Your task to perform on an android device: turn pop-ups off in chrome Image 0: 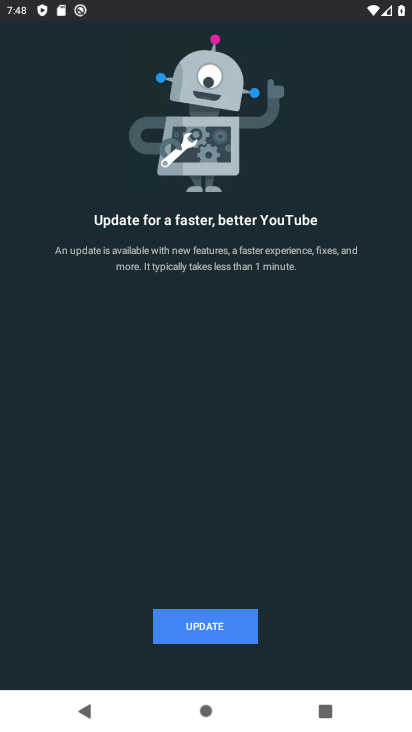
Step 0: press home button
Your task to perform on an android device: turn pop-ups off in chrome Image 1: 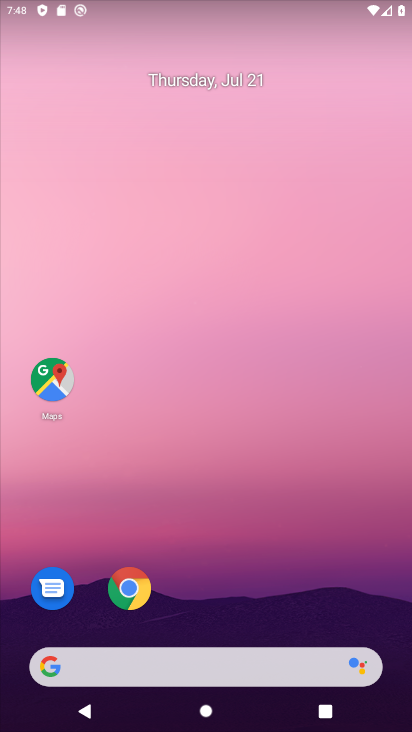
Step 1: click (127, 591)
Your task to perform on an android device: turn pop-ups off in chrome Image 2: 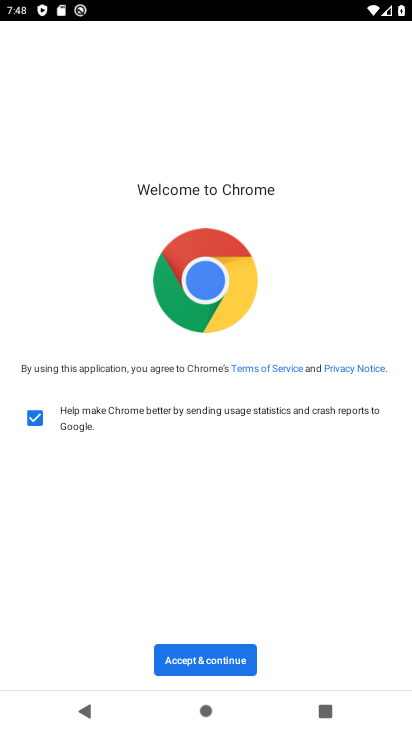
Step 2: click (212, 652)
Your task to perform on an android device: turn pop-ups off in chrome Image 3: 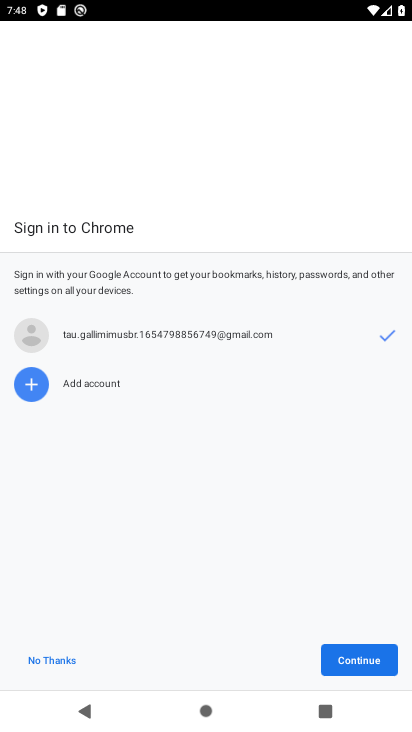
Step 3: click (366, 657)
Your task to perform on an android device: turn pop-ups off in chrome Image 4: 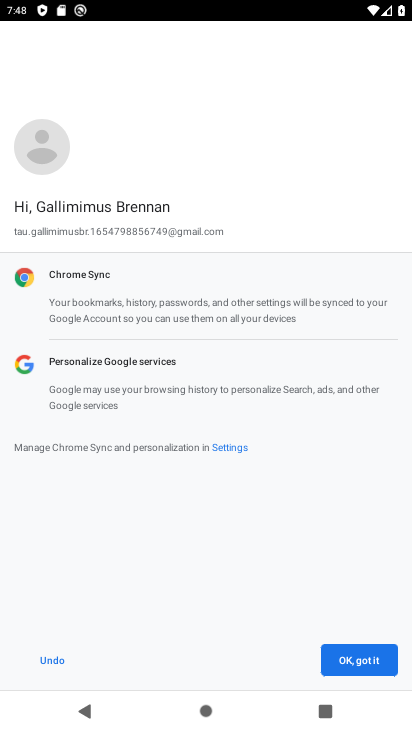
Step 4: click (356, 660)
Your task to perform on an android device: turn pop-ups off in chrome Image 5: 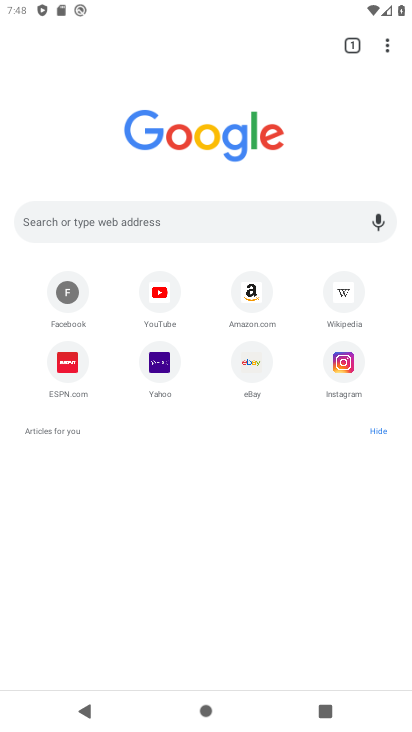
Step 5: click (388, 47)
Your task to perform on an android device: turn pop-ups off in chrome Image 6: 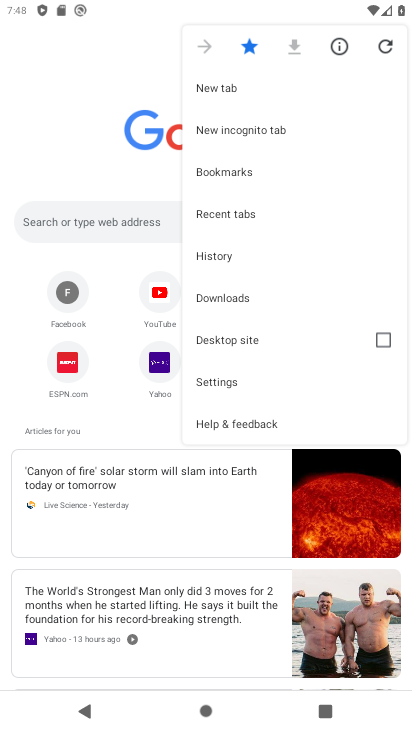
Step 6: click (220, 382)
Your task to perform on an android device: turn pop-ups off in chrome Image 7: 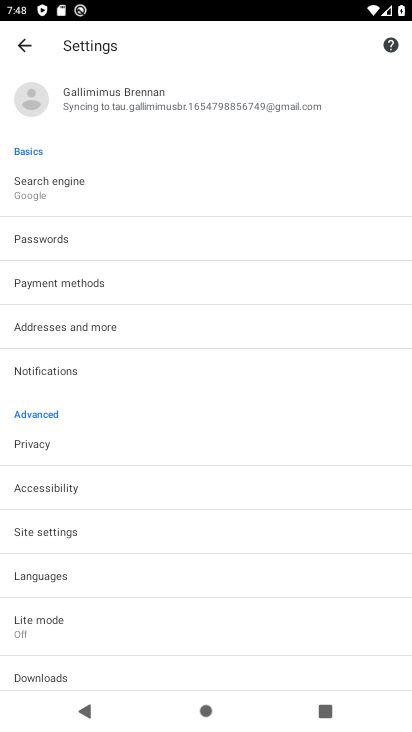
Step 7: click (51, 531)
Your task to perform on an android device: turn pop-ups off in chrome Image 8: 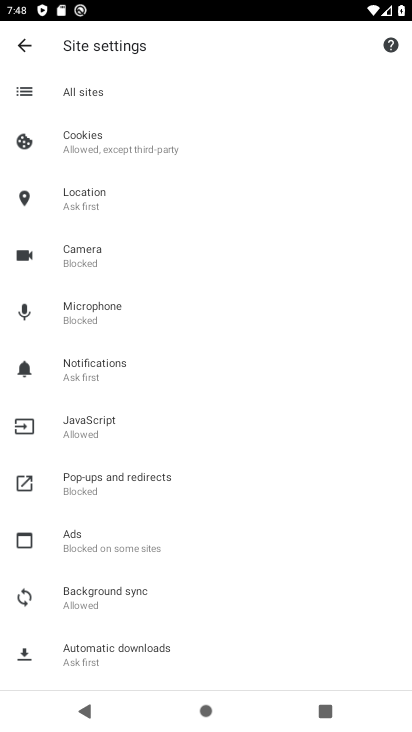
Step 8: click (95, 477)
Your task to perform on an android device: turn pop-ups off in chrome Image 9: 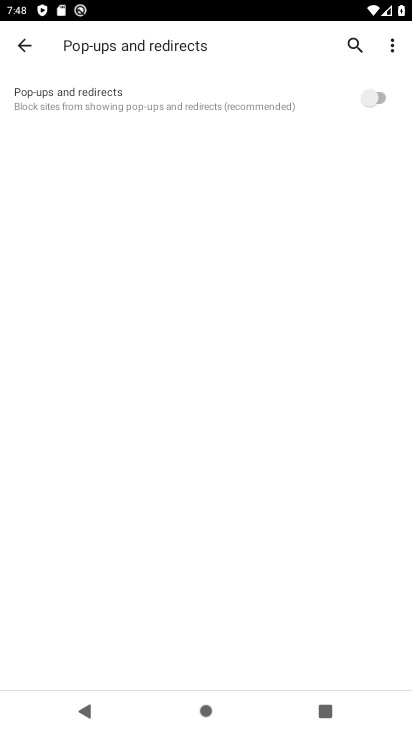
Step 9: task complete